Your task to perform on an android device: remove spam from my inbox in the gmail app Image 0: 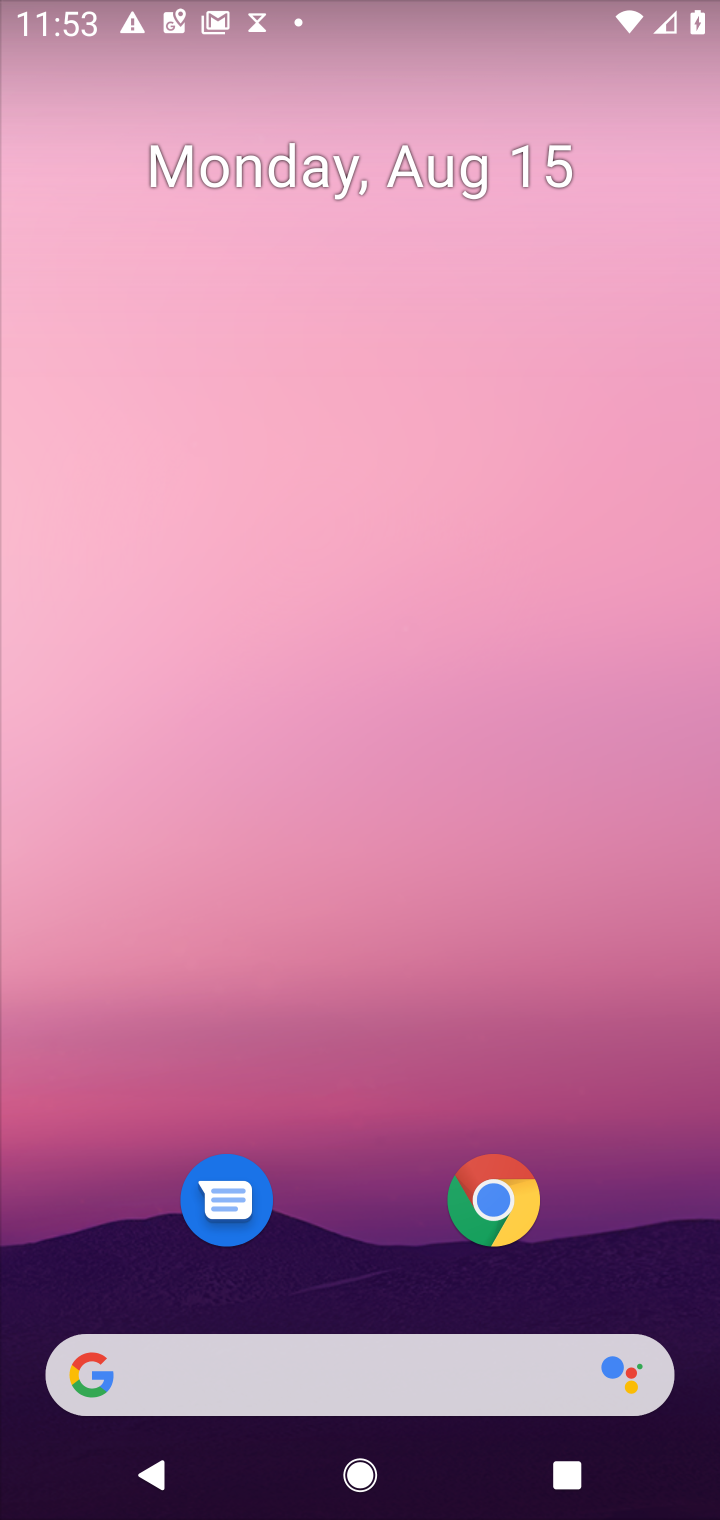
Step 0: drag from (310, 1035) to (280, 652)
Your task to perform on an android device: remove spam from my inbox in the gmail app Image 1: 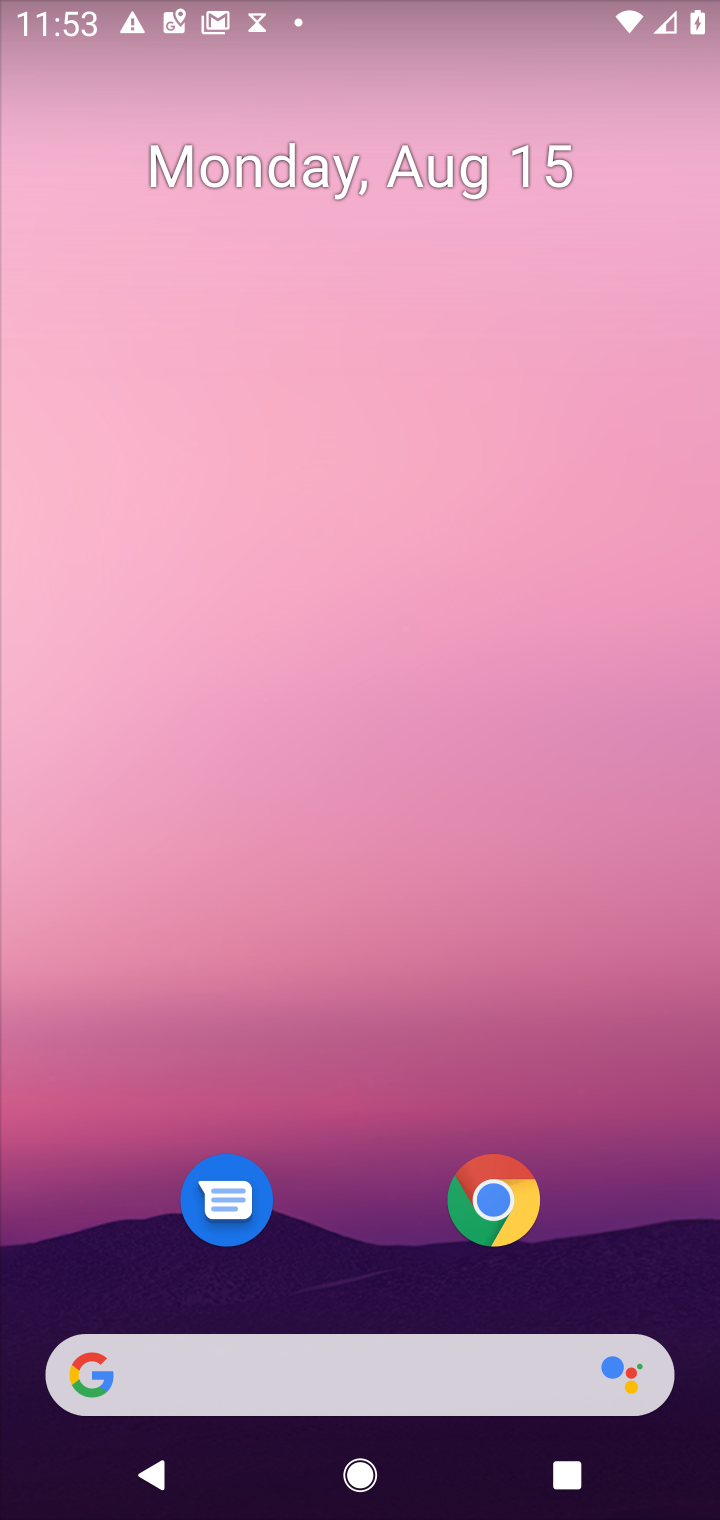
Step 1: drag from (318, 1123) to (315, 452)
Your task to perform on an android device: remove spam from my inbox in the gmail app Image 2: 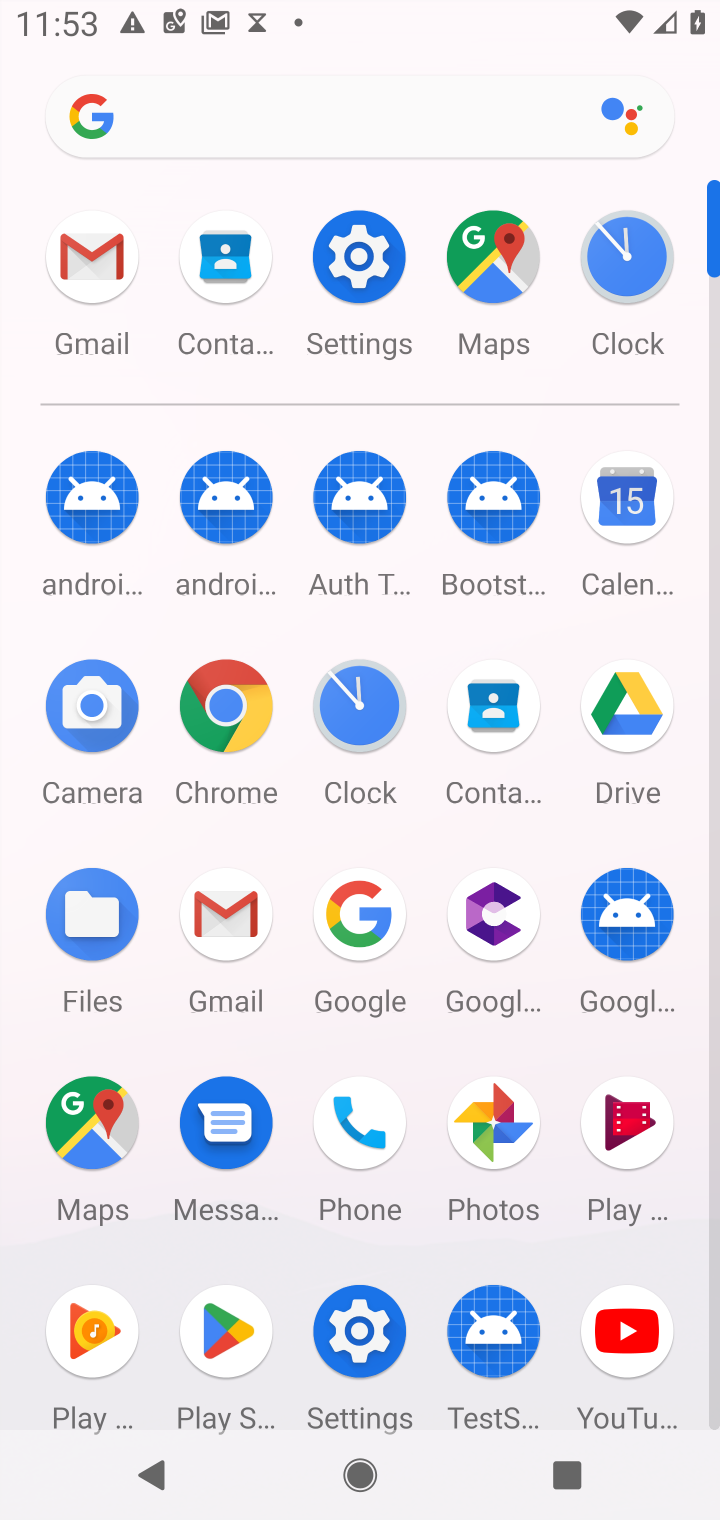
Step 2: click (100, 300)
Your task to perform on an android device: remove spam from my inbox in the gmail app Image 3: 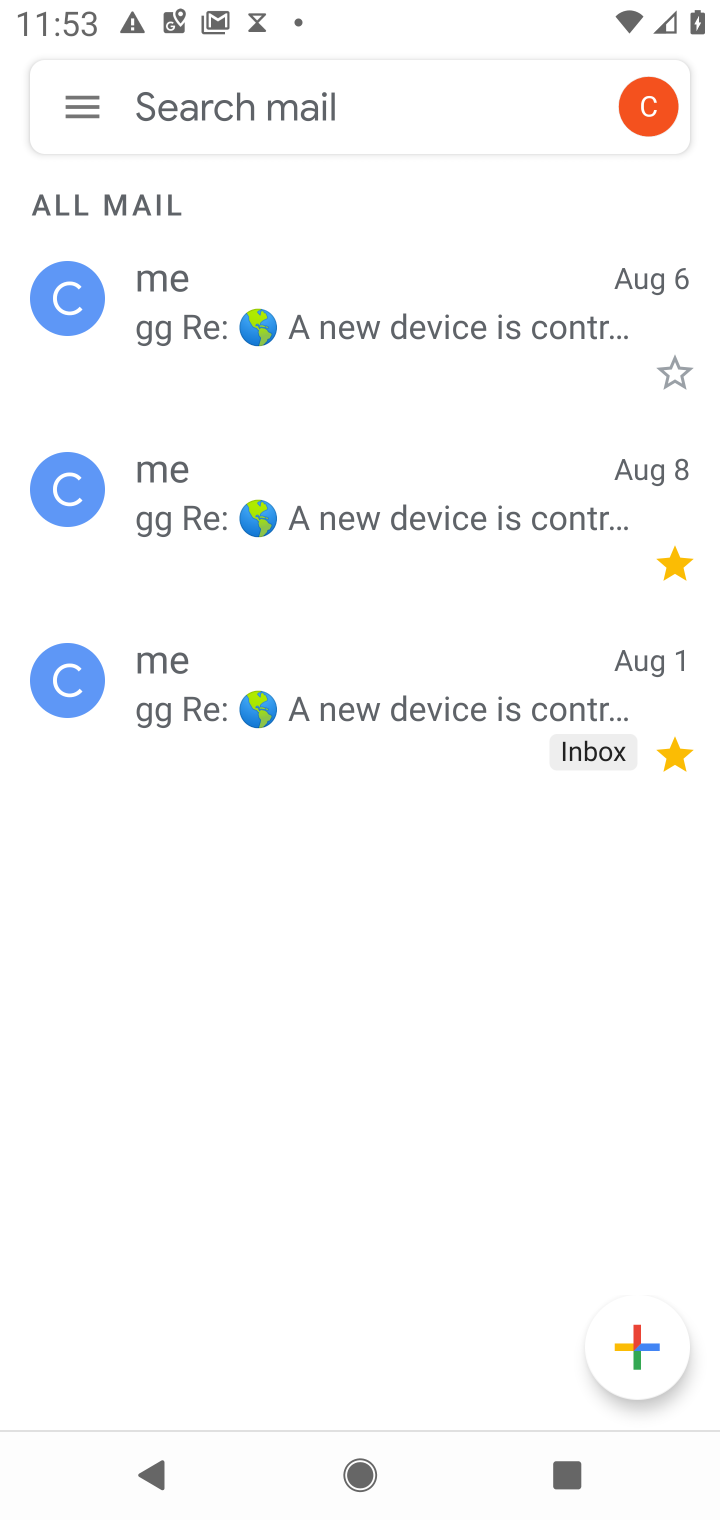
Step 3: click (67, 140)
Your task to perform on an android device: remove spam from my inbox in the gmail app Image 4: 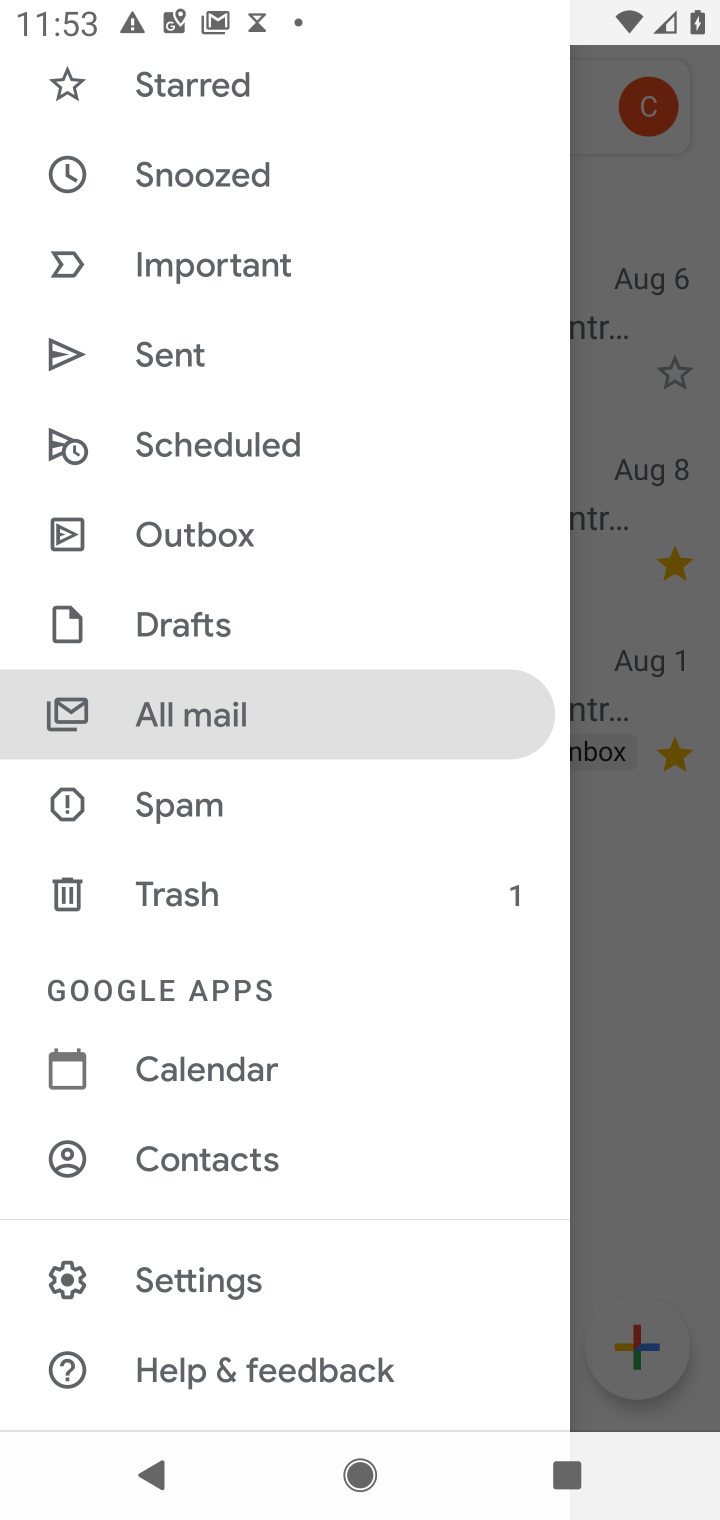
Step 4: click (224, 805)
Your task to perform on an android device: remove spam from my inbox in the gmail app Image 5: 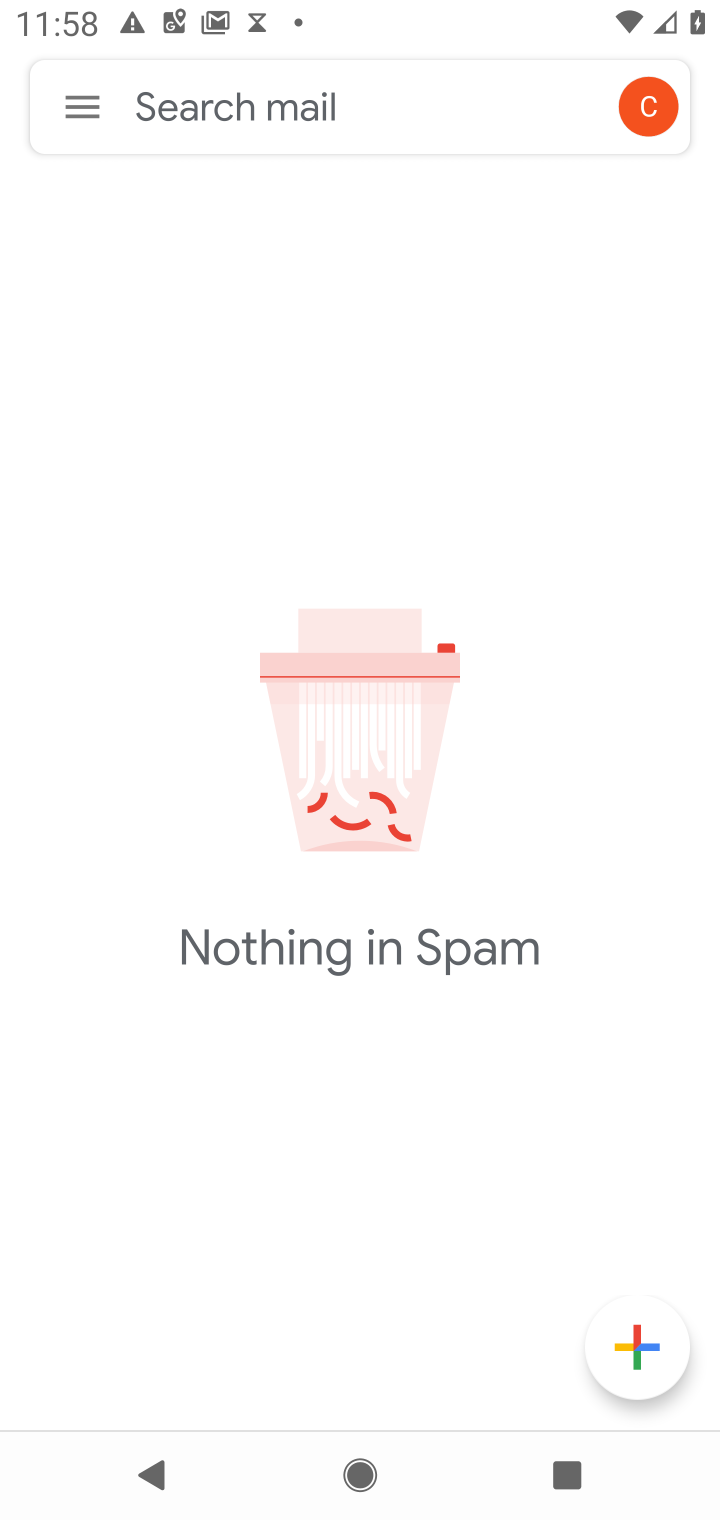
Step 5: task complete